Your task to perform on an android device: change the clock display to show seconds Image 0: 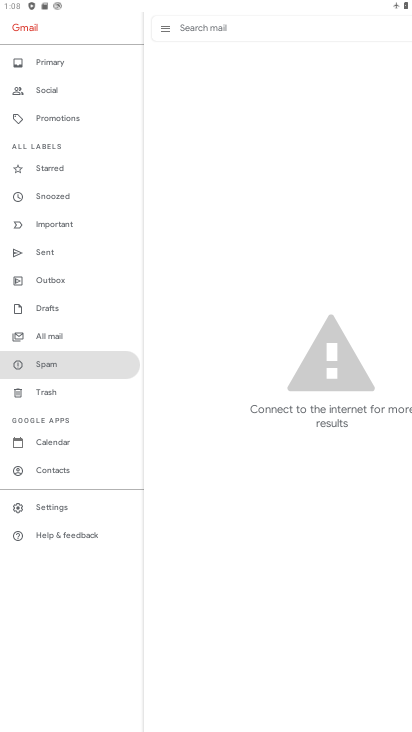
Step 0: press home button
Your task to perform on an android device: change the clock display to show seconds Image 1: 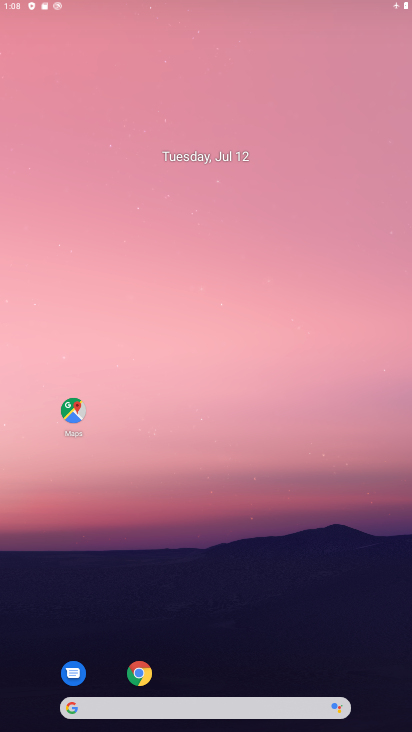
Step 1: drag from (251, 596) to (244, 160)
Your task to perform on an android device: change the clock display to show seconds Image 2: 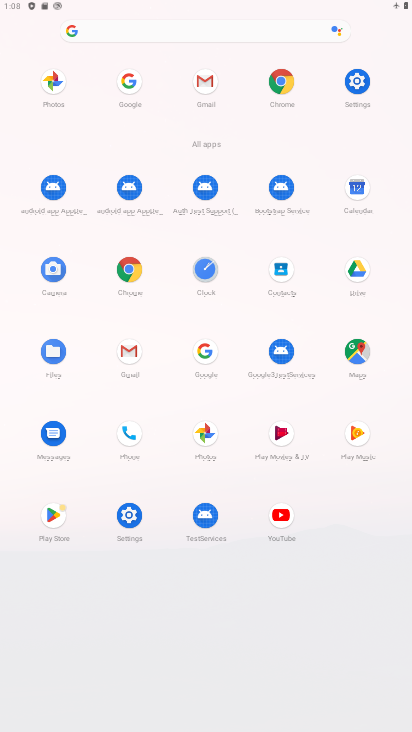
Step 2: click (199, 267)
Your task to perform on an android device: change the clock display to show seconds Image 3: 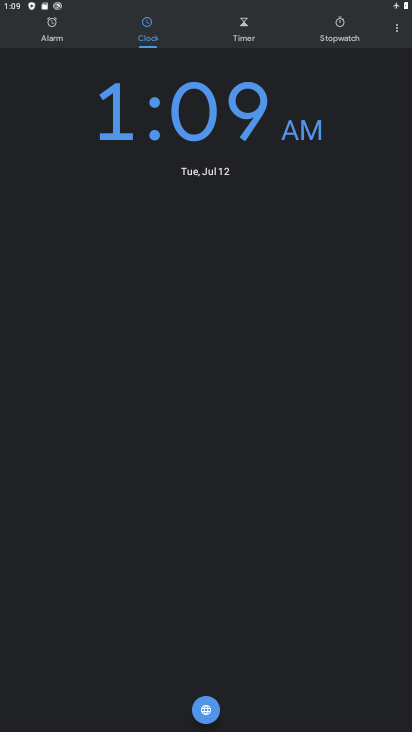
Step 3: click (402, 35)
Your task to perform on an android device: change the clock display to show seconds Image 4: 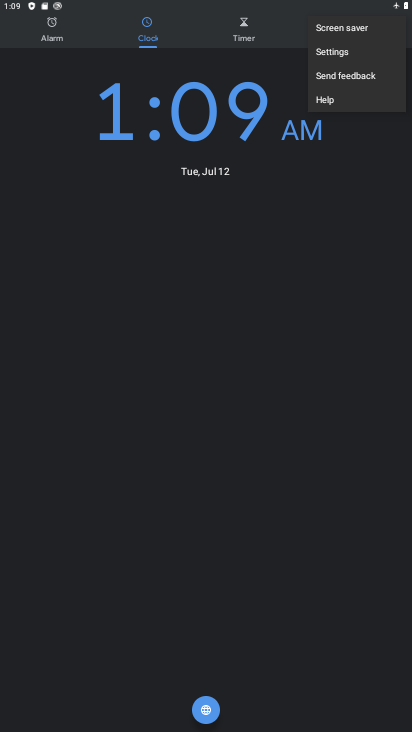
Step 4: click (367, 56)
Your task to perform on an android device: change the clock display to show seconds Image 5: 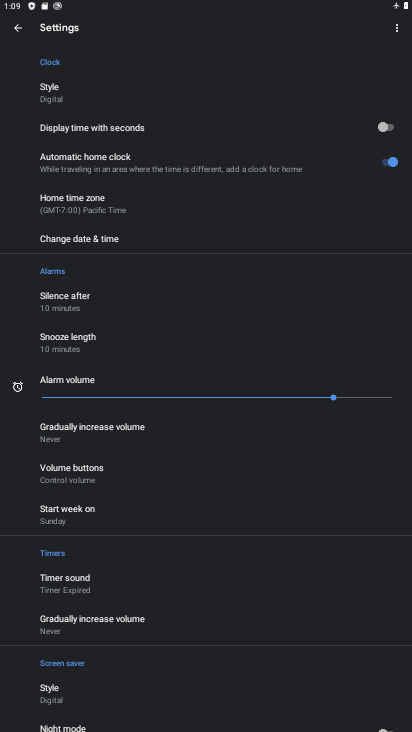
Step 5: click (385, 129)
Your task to perform on an android device: change the clock display to show seconds Image 6: 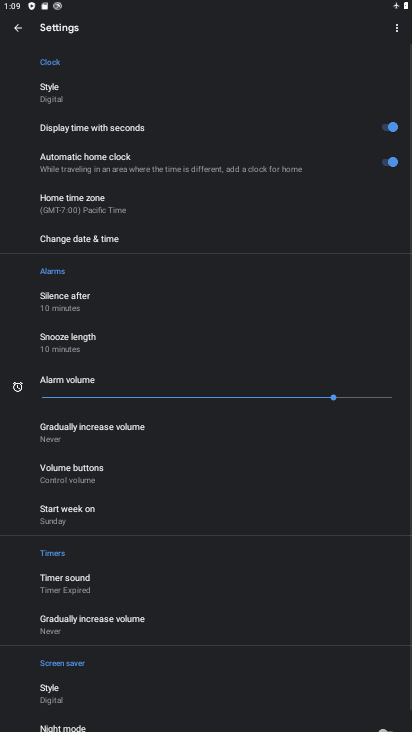
Step 6: task complete